Your task to perform on an android device: turn off sleep mode Image 0: 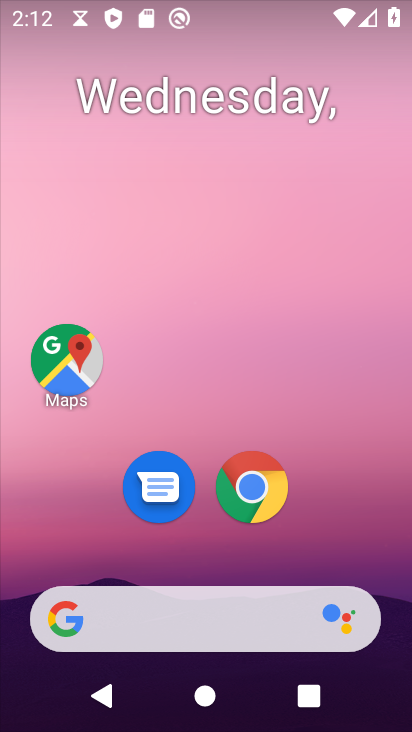
Step 0: drag from (324, 381) to (324, 239)
Your task to perform on an android device: turn off sleep mode Image 1: 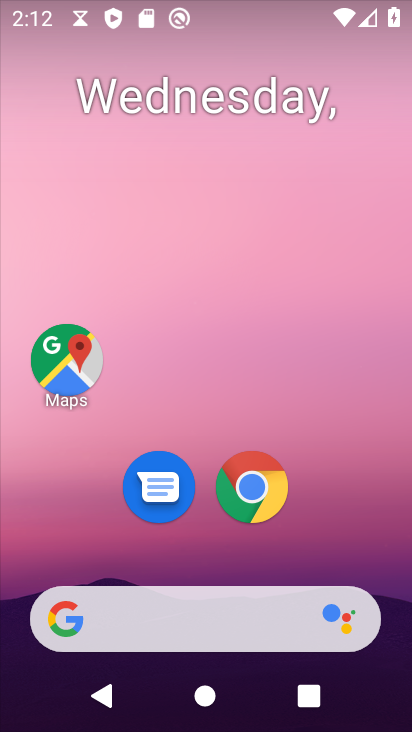
Step 1: drag from (264, 609) to (273, 251)
Your task to perform on an android device: turn off sleep mode Image 2: 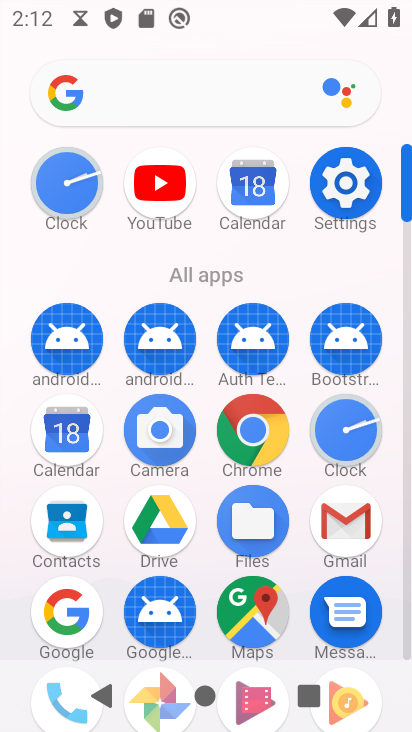
Step 2: click (331, 189)
Your task to perform on an android device: turn off sleep mode Image 3: 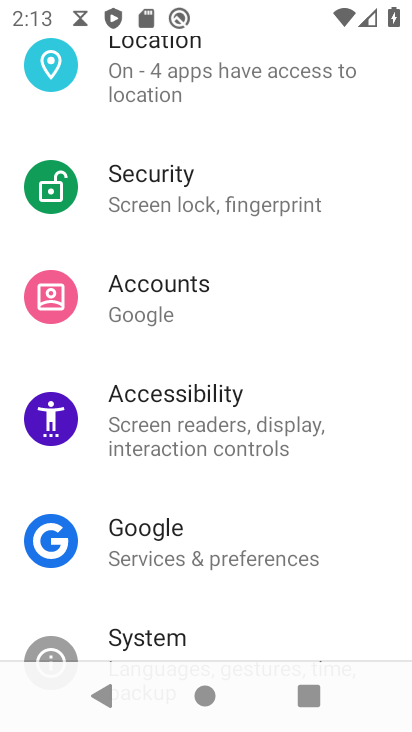
Step 3: task complete